Your task to perform on an android device: When is my next appointment? Image 0: 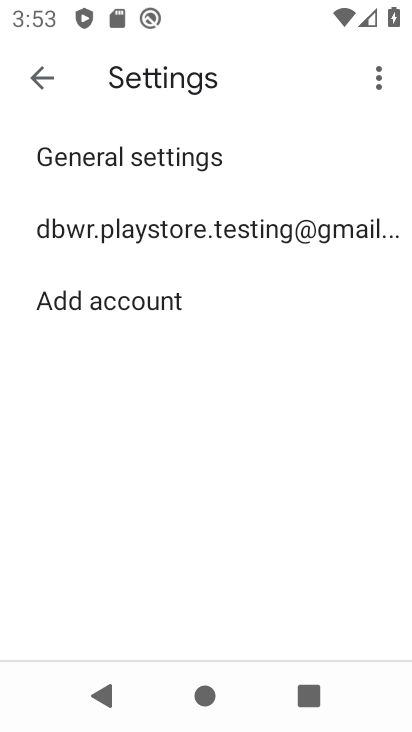
Step 0: press home button
Your task to perform on an android device: When is my next appointment? Image 1: 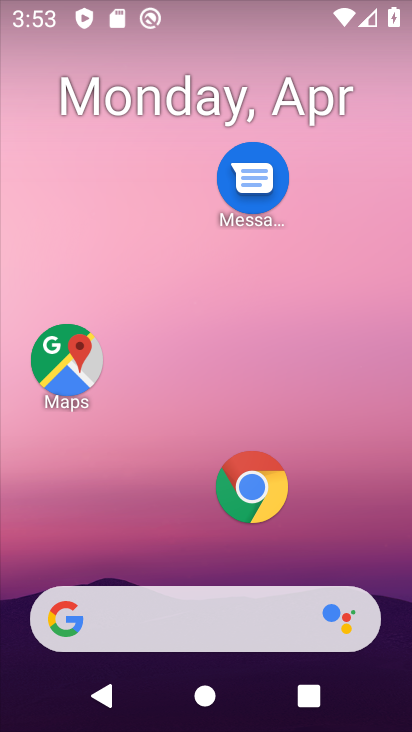
Step 1: drag from (138, 541) to (224, 107)
Your task to perform on an android device: When is my next appointment? Image 2: 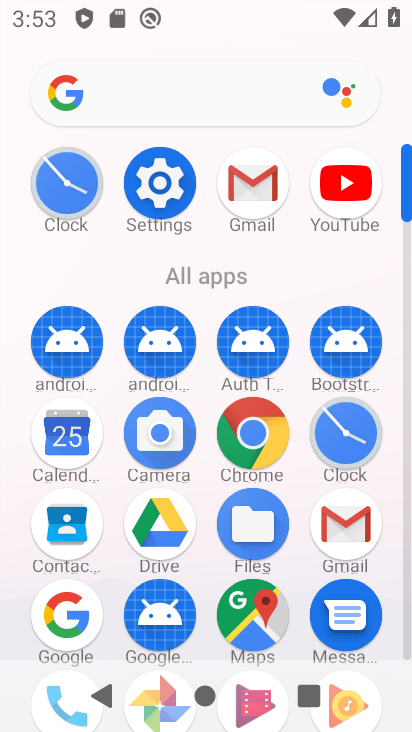
Step 2: click (70, 428)
Your task to perform on an android device: When is my next appointment? Image 3: 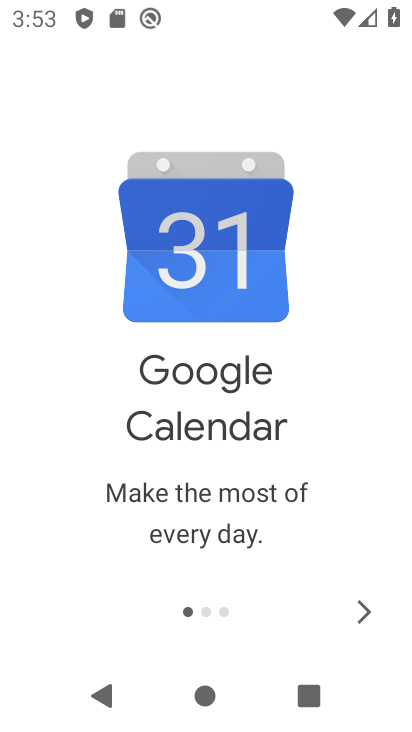
Step 3: click (369, 599)
Your task to perform on an android device: When is my next appointment? Image 4: 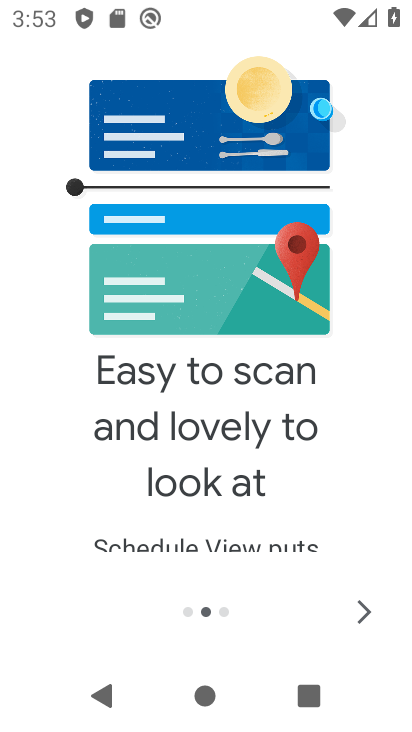
Step 4: click (361, 605)
Your task to perform on an android device: When is my next appointment? Image 5: 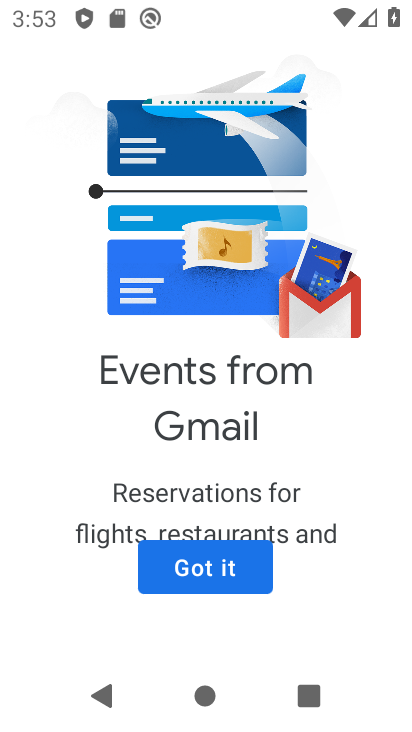
Step 5: click (201, 569)
Your task to perform on an android device: When is my next appointment? Image 6: 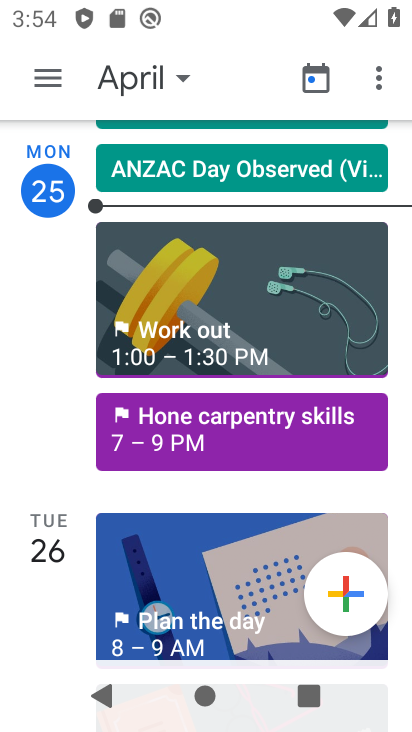
Step 6: click (58, 83)
Your task to perform on an android device: When is my next appointment? Image 7: 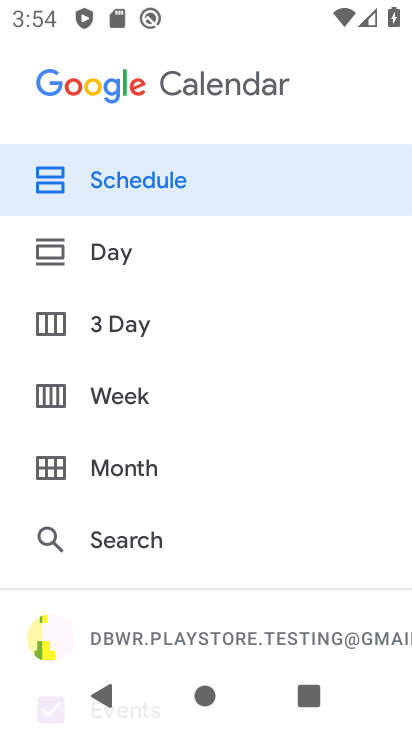
Step 7: click (135, 192)
Your task to perform on an android device: When is my next appointment? Image 8: 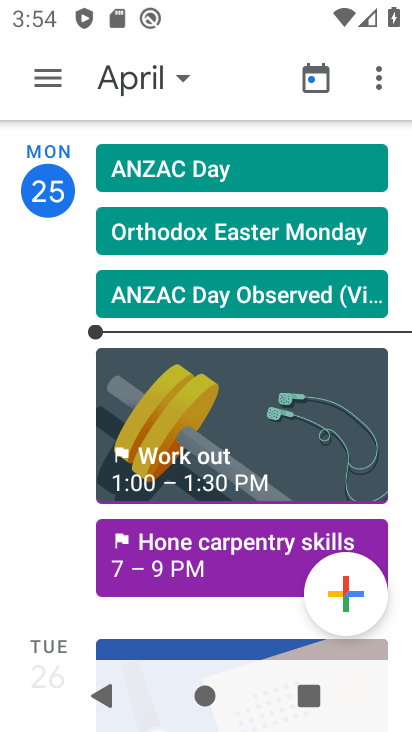
Step 8: task complete